Your task to perform on an android device: turn off location Image 0: 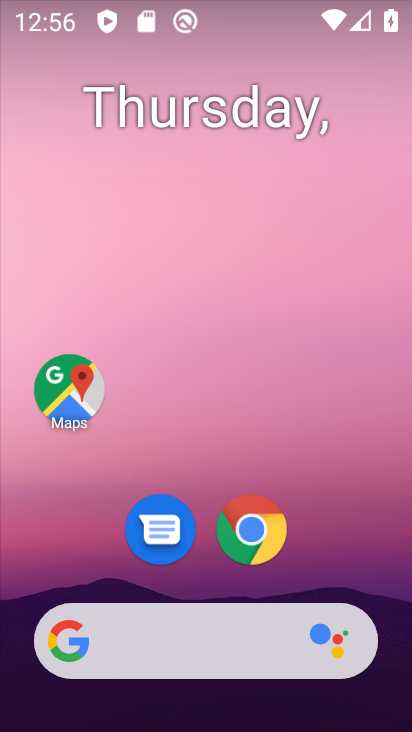
Step 0: drag from (209, 711) to (223, 33)
Your task to perform on an android device: turn off location Image 1: 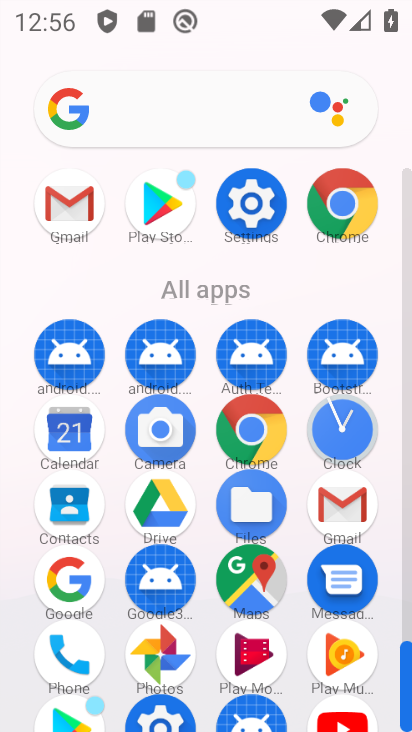
Step 1: click (243, 200)
Your task to perform on an android device: turn off location Image 2: 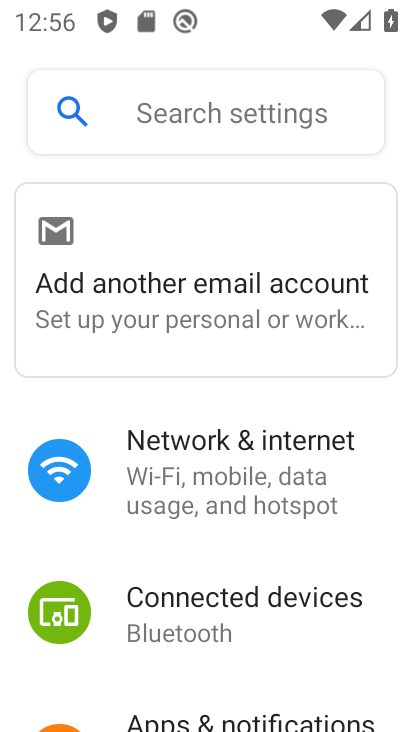
Step 2: drag from (226, 649) to (226, 247)
Your task to perform on an android device: turn off location Image 3: 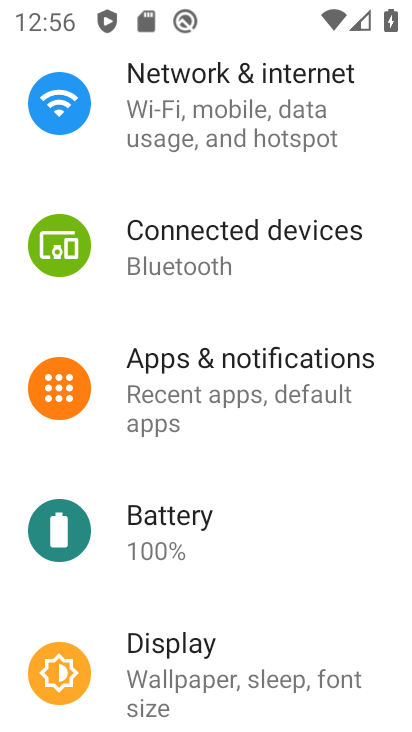
Step 3: drag from (184, 626) to (187, 211)
Your task to perform on an android device: turn off location Image 4: 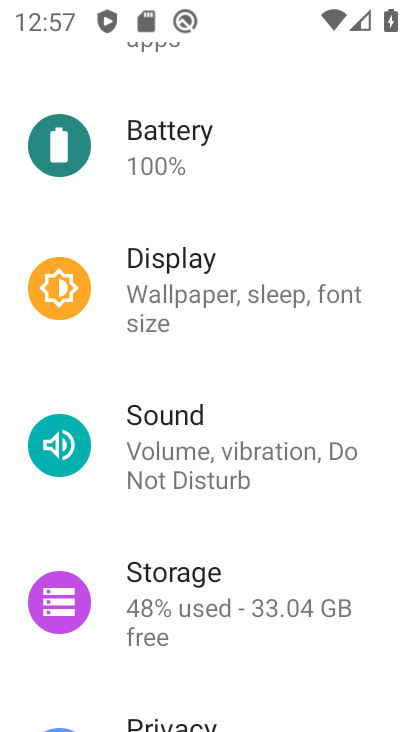
Step 4: drag from (188, 643) to (164, 220)
Your task to perform on an android device: turn off location Image 5: 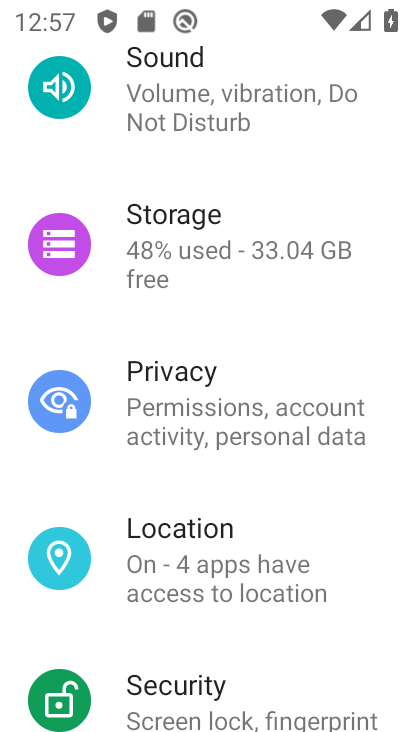
Step 5: click (175, 556)
Your task to perform on an android device: turn off location Image 6: 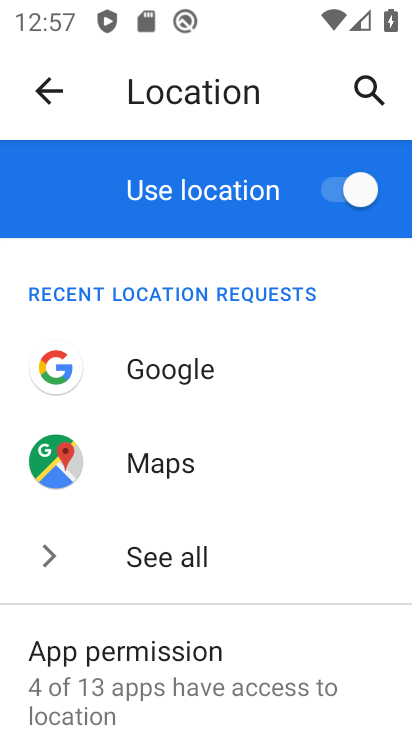
Step 6: click (331, 190)
Your task to perform on an android device: turn off location Image 7: 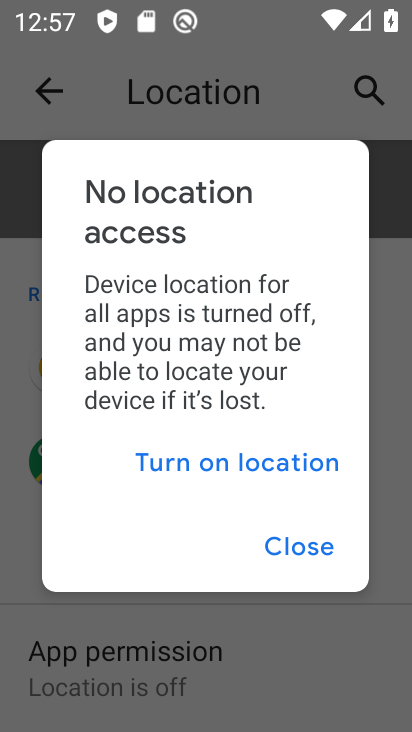
Step 7: click (303, 549)
Your task to perform on an android device: turn off location Image 8: 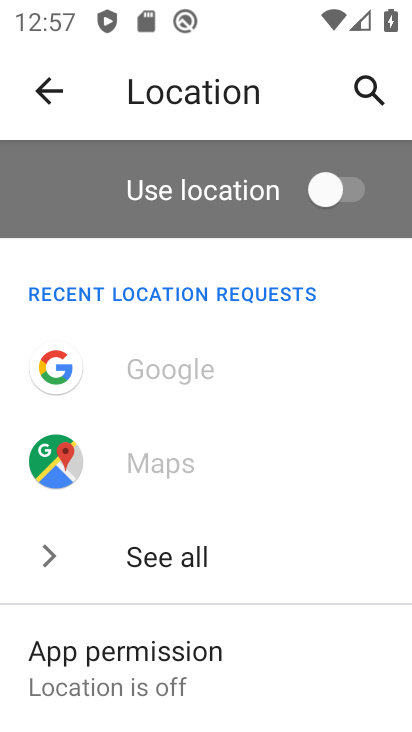
Step 8: task complete